Your task to perform on an android device: manage bookmarks in the chrome app Image 0: 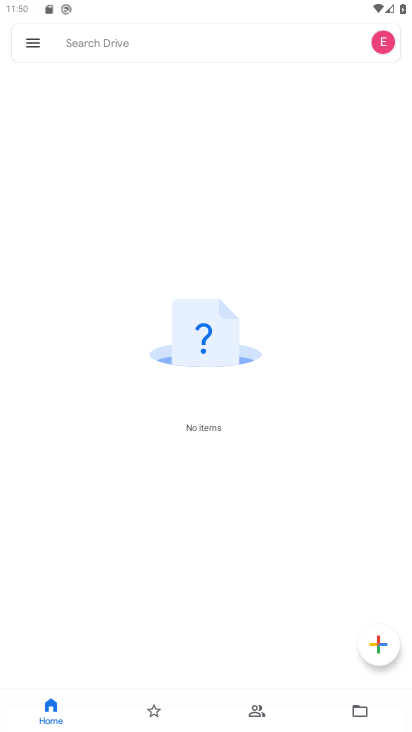
Step 0: press home button
Your task to perform on an android device: manage bookmarks in the chrome app Image 1: 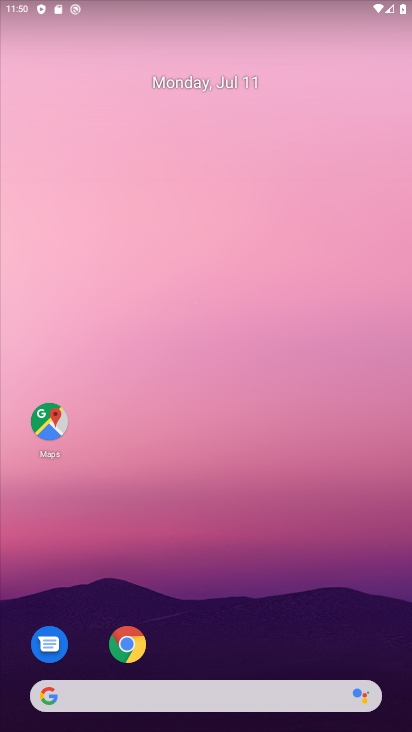
Step 1: click (124, 636)
Your task to perform on an android device: manage bookmarks in the chrome app Image 2: 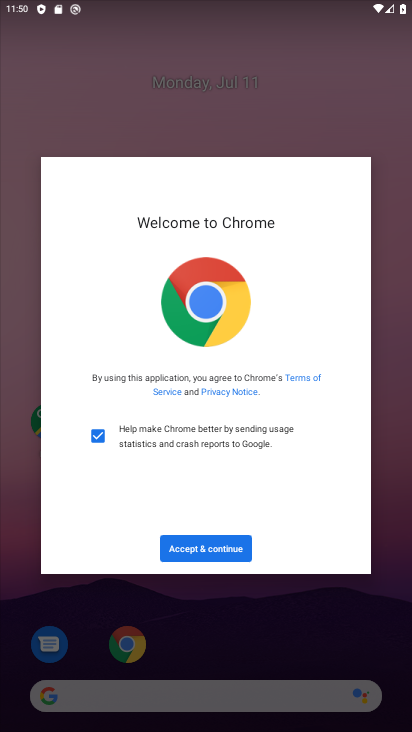
Step 2: click (214, 547)
Your task to perform on an android device: manage bookmarks in the chrome app Image 3: 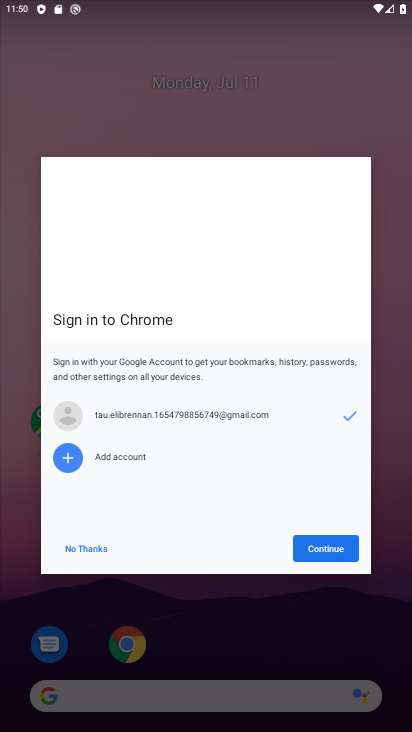
Step 3: click (315, 548)
Your task to perform on an android device: manage bookmarks in the chrome app Image 4: 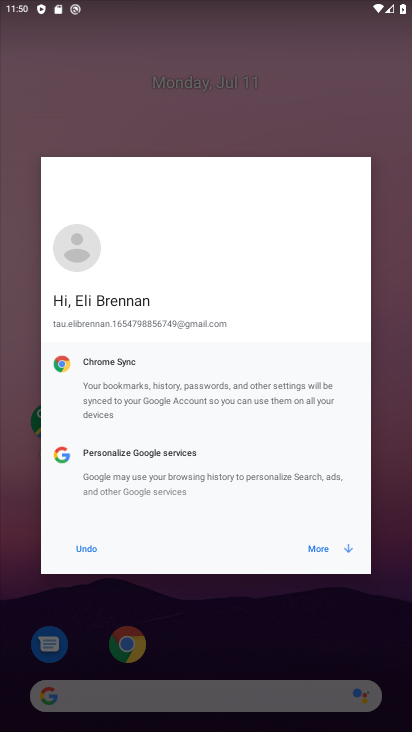
Step 4: click (321, 545)
Your task to perform on an android device: manage bookmarks in the chrome app Image 5: 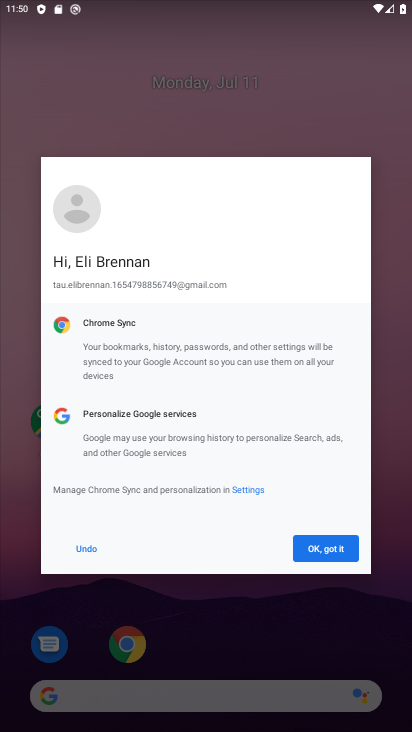
Step 5: click (320, 549)
Your task to perform on an android device: manage bookmarks in the chrome app Image 6: 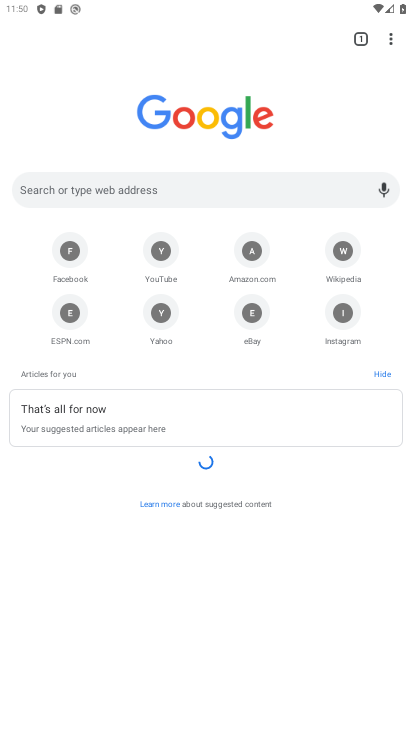
Step 6: click (387, 41)
Your task to perform on an android device: manage bookmarks in the chrome app Image 7: 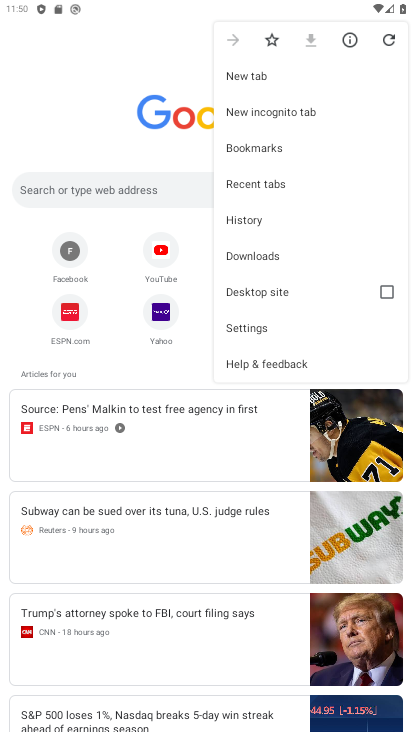
Step 7: click (257, 150)
Your task to perform on an android device: manage bookmarks in the chrome app Image 8: 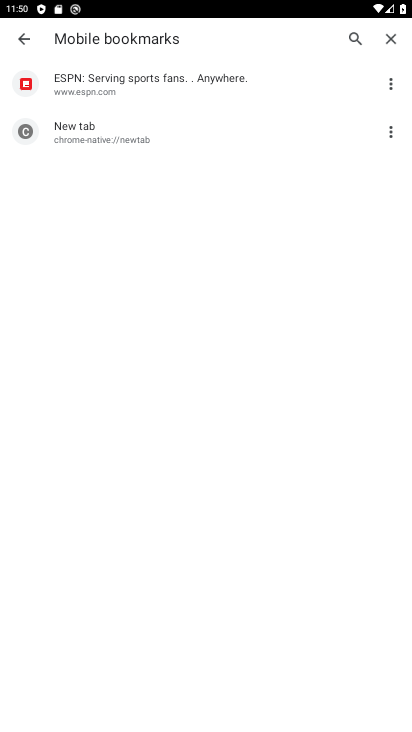
Step 8: task complete